Your task to perform on an android device: turn on the 24-hour format for clock Image 0: 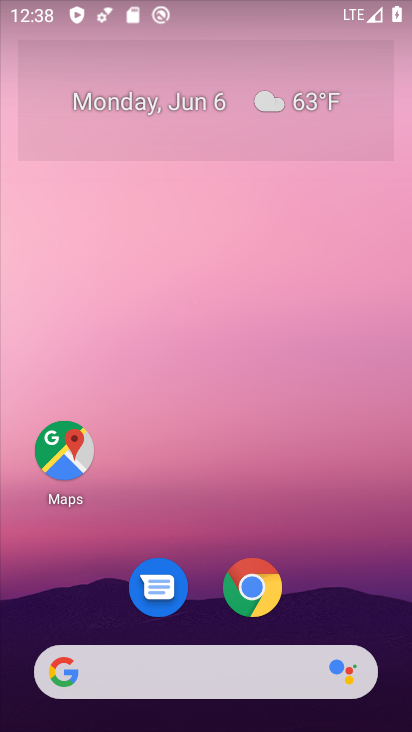
Step 0: drag from (387, 637) to (278, 180)
Your task to perform on an android device: turn on the 24-hour format for clock Image 1: 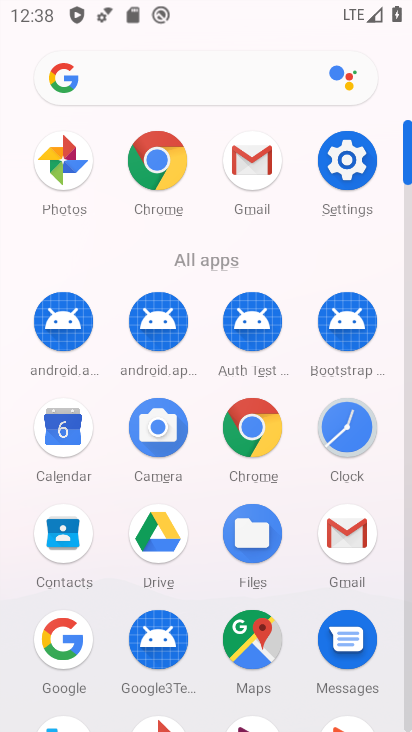
Step 1: click (347, 424)
Your task to perform on an android device: turn on the 24-hour format for clock Image 2: 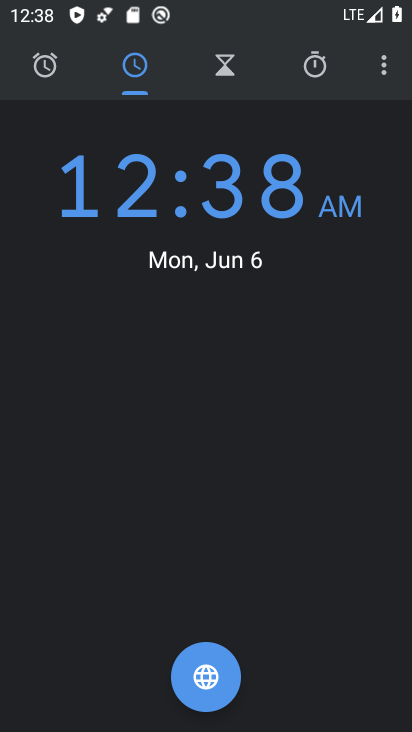
Step 2: click (388, 82)
Your task to perform on an android device: turn on the 24-hour format for clock Image 3: 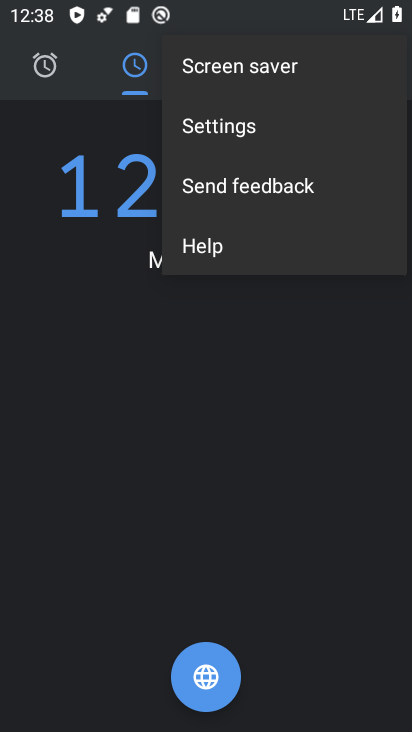
Step 3: click (316, 119)
Your task to perform on an android device: turn on the 24-hour format for clock Image 4: 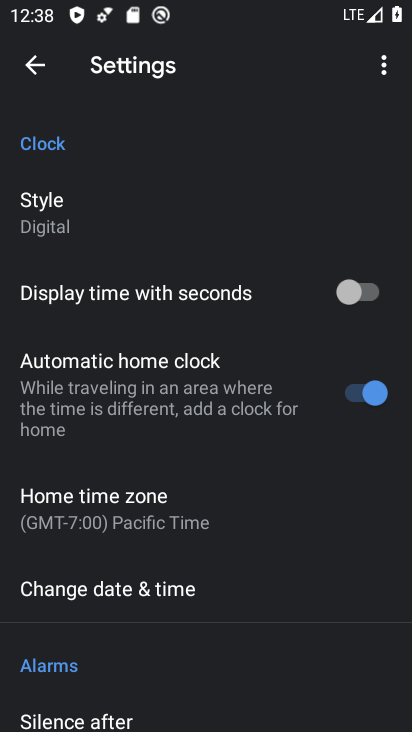
Step 4: click (290, 589)
Your task to perform on an android device: turn on the 24-hour format for clock Image 5: 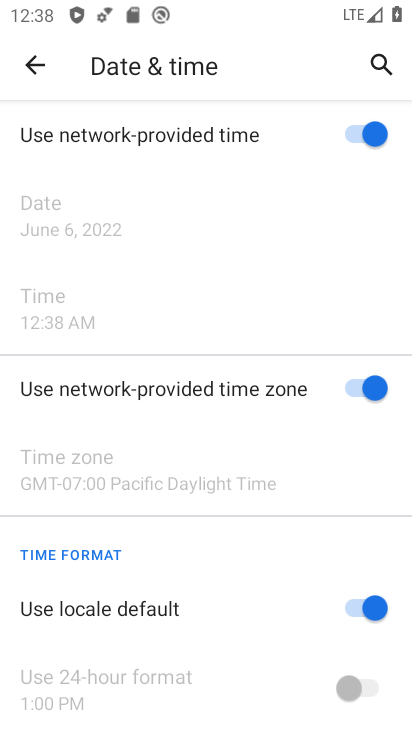
Step 5: drag from (246, 632) to (223, 414)
Your task to perform on an android device: turn on the 24-hour format for clock Image 6: 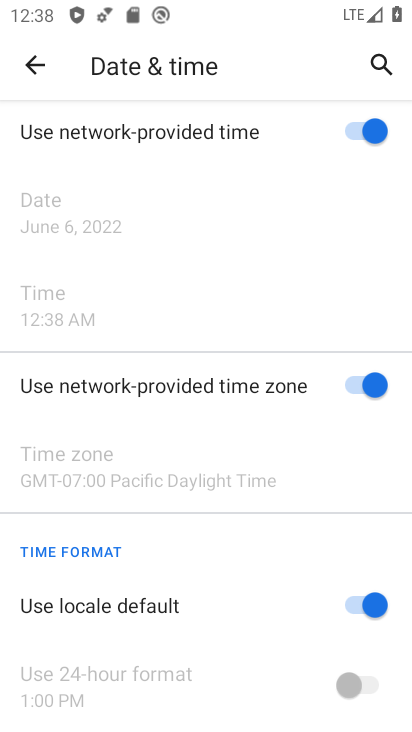
Step 6: click (365, 605)
Your task to perform on an android device: turn on the 24-hour format for clock Image 7: 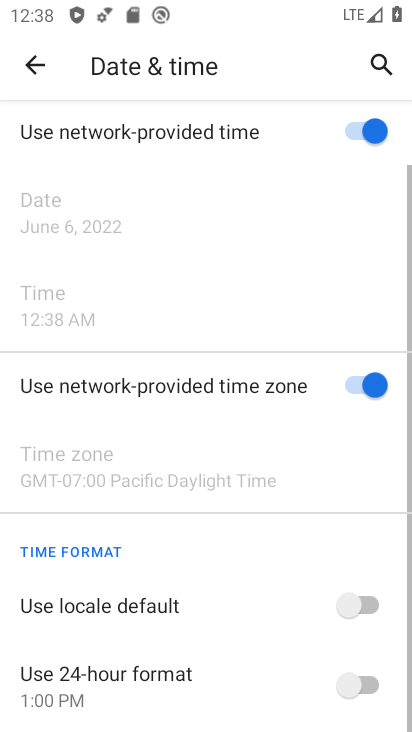
Step 7: click (362, 687)
Your task to perform on an android device: turn on the 24-hour format for clock Image 8: 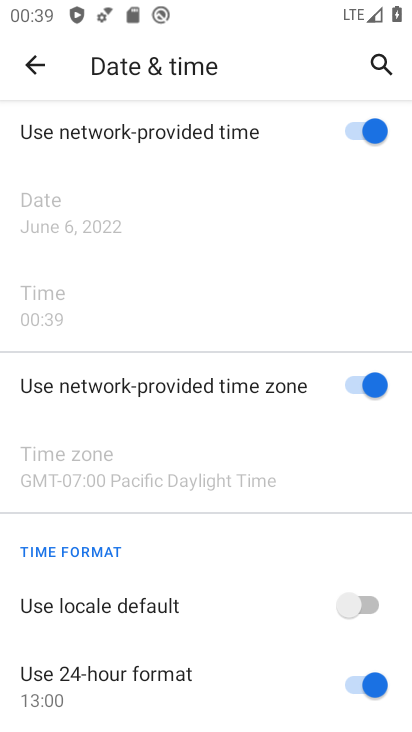
Step 8: task complete